Your task to perform on an android device: Search for logitech g933 on ebay.com, select the first entry, and add it to the cart. Image 0: 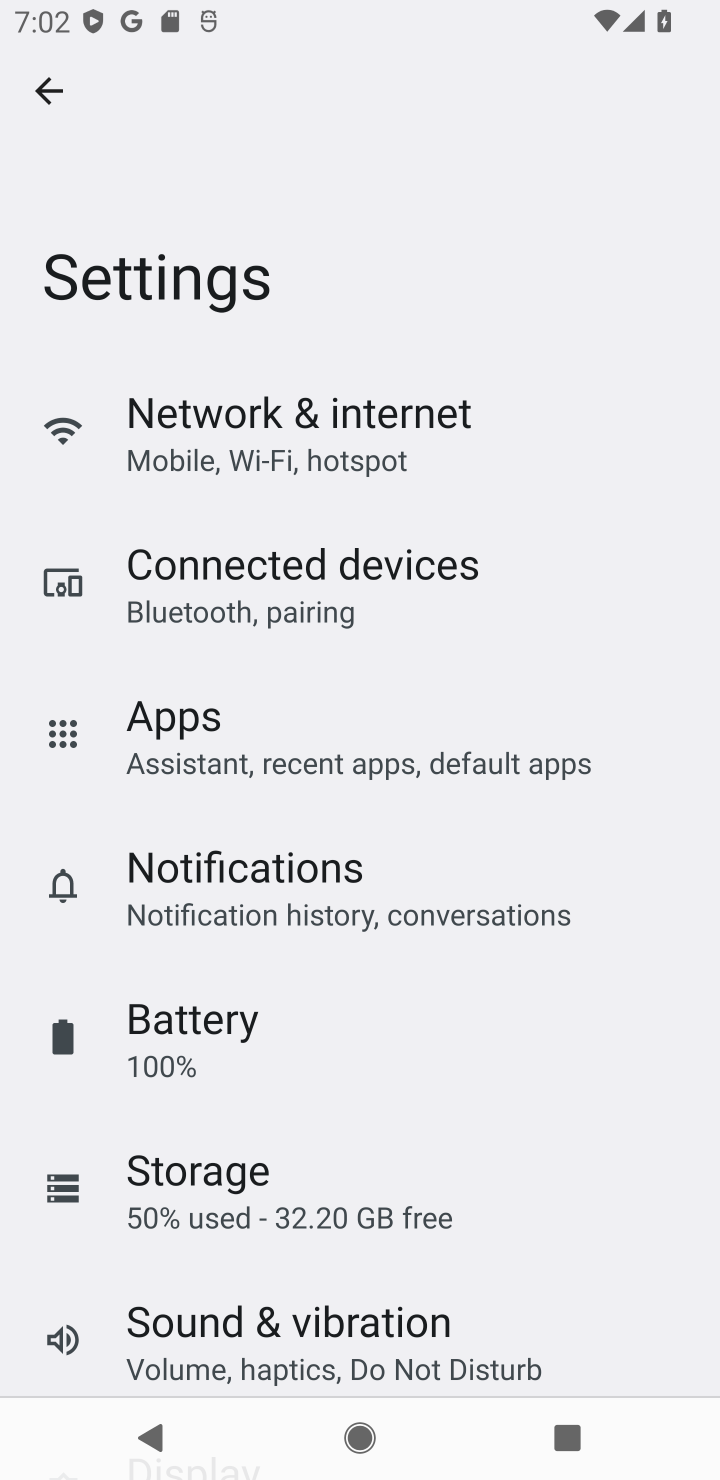
Step 0: press home button
Your task to perform on an android device: Search for logitech g933 on ebay.com, select the first entry, and add it to the cart. Image 1: 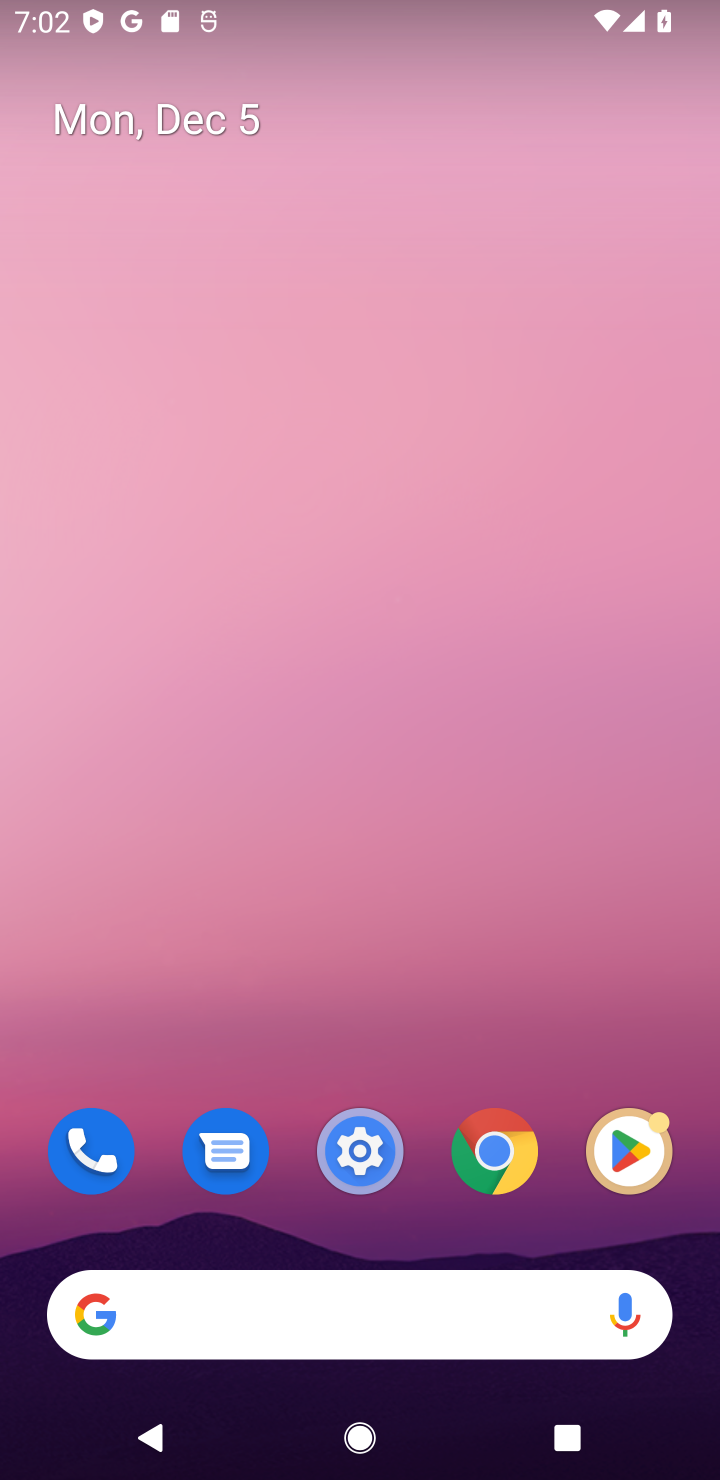
Step 1: click (331, 1364)
Your task to perform on an android device: Search for logitech g933 on ebay.com, select the first entry, and add it to the cart. Image 2: 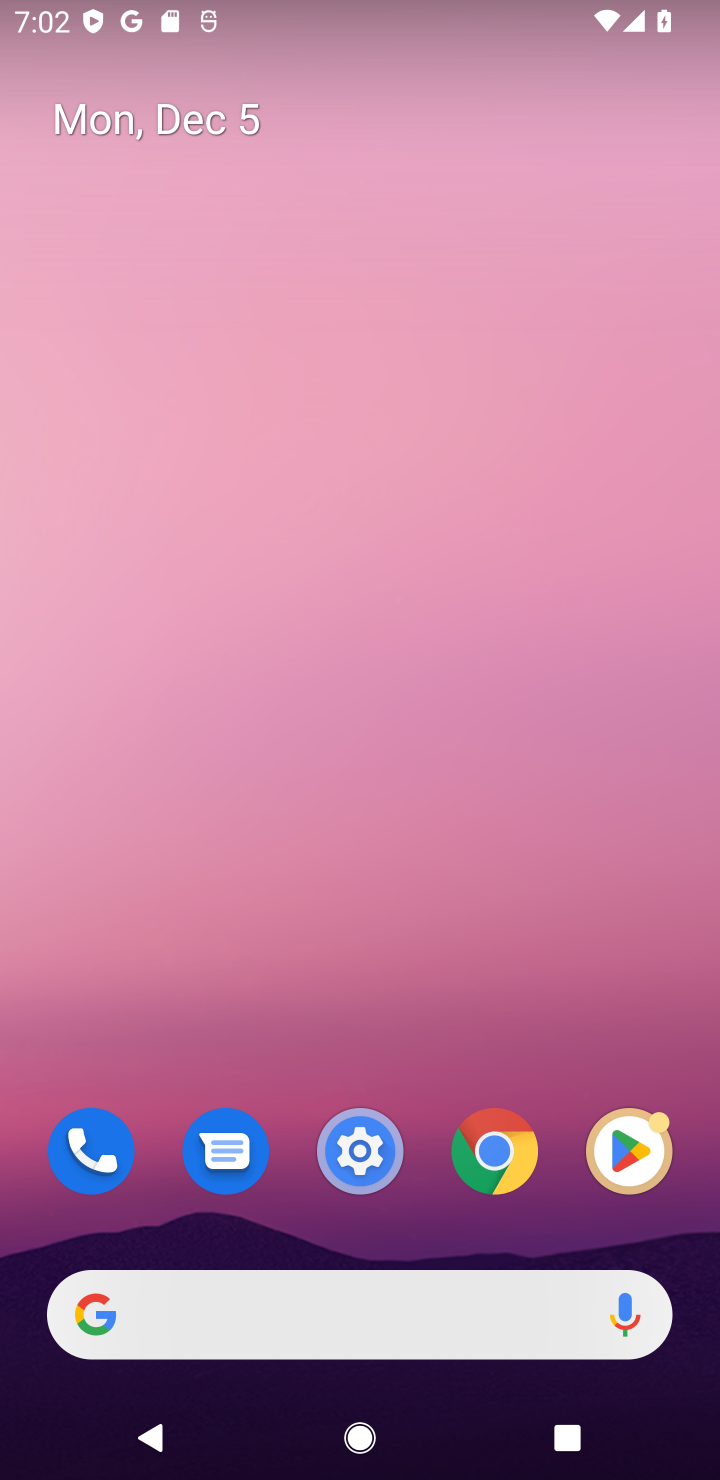
Step 2: click (306, 1335)
Your task to perform on an android device: Search for logitech g933 on ebay.com, select the first entry, and add it to the cart. Image 3: 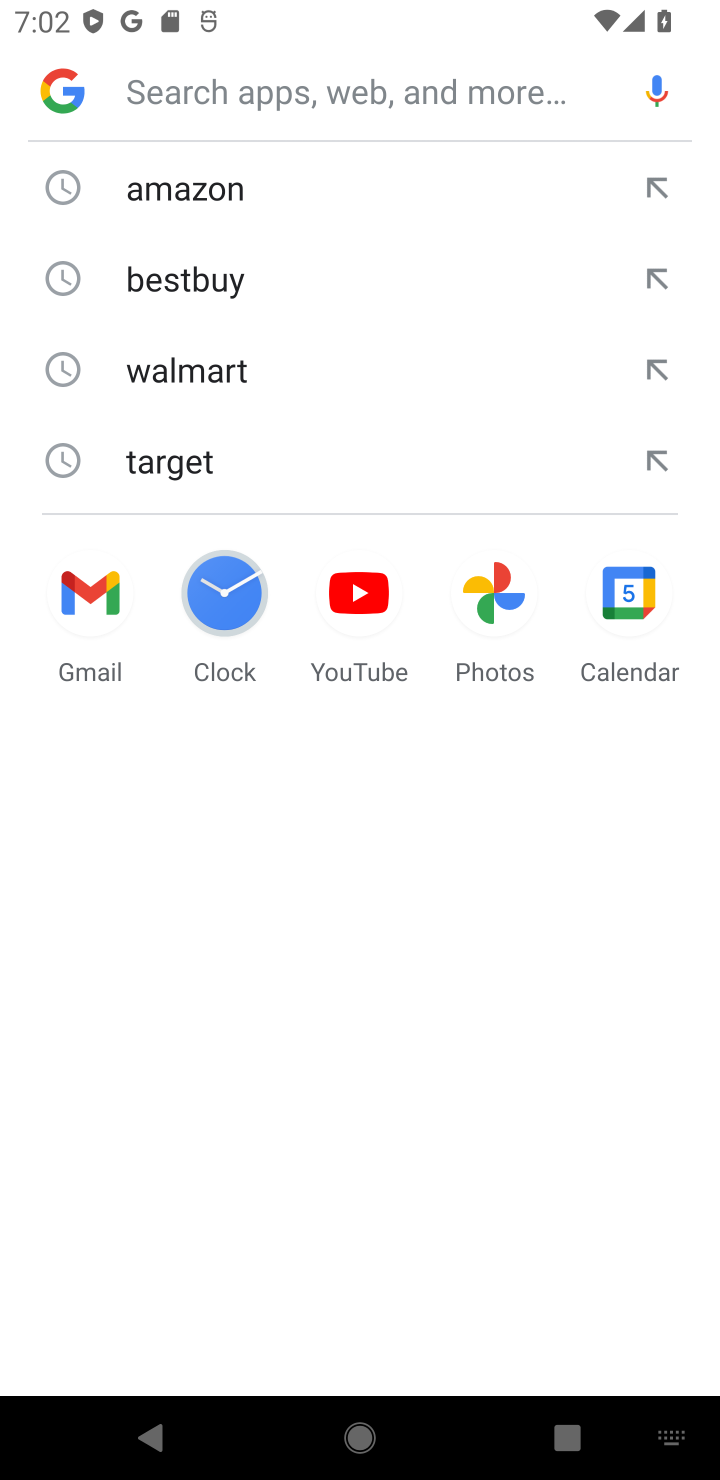
Step 3: type "ebay.com"
Your task to perform on an android device: Search for logitech g933 on ebay.com, select the first entry, and add it to the cart. Image 4: 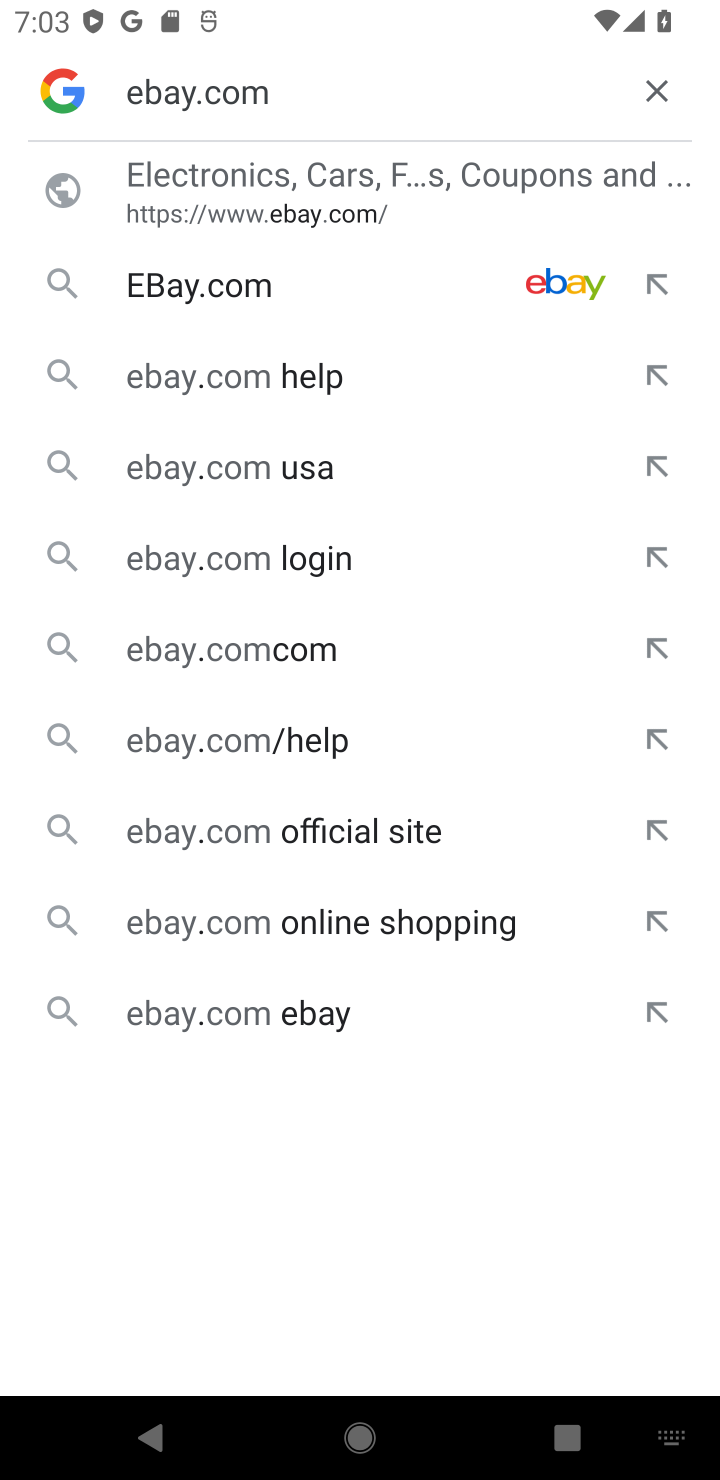
Step 4: click (327, 205)
Your task to perform on an android device: Search for logitech g933 on ebay.com, select the first entry, and add it to the cart. Image 5: 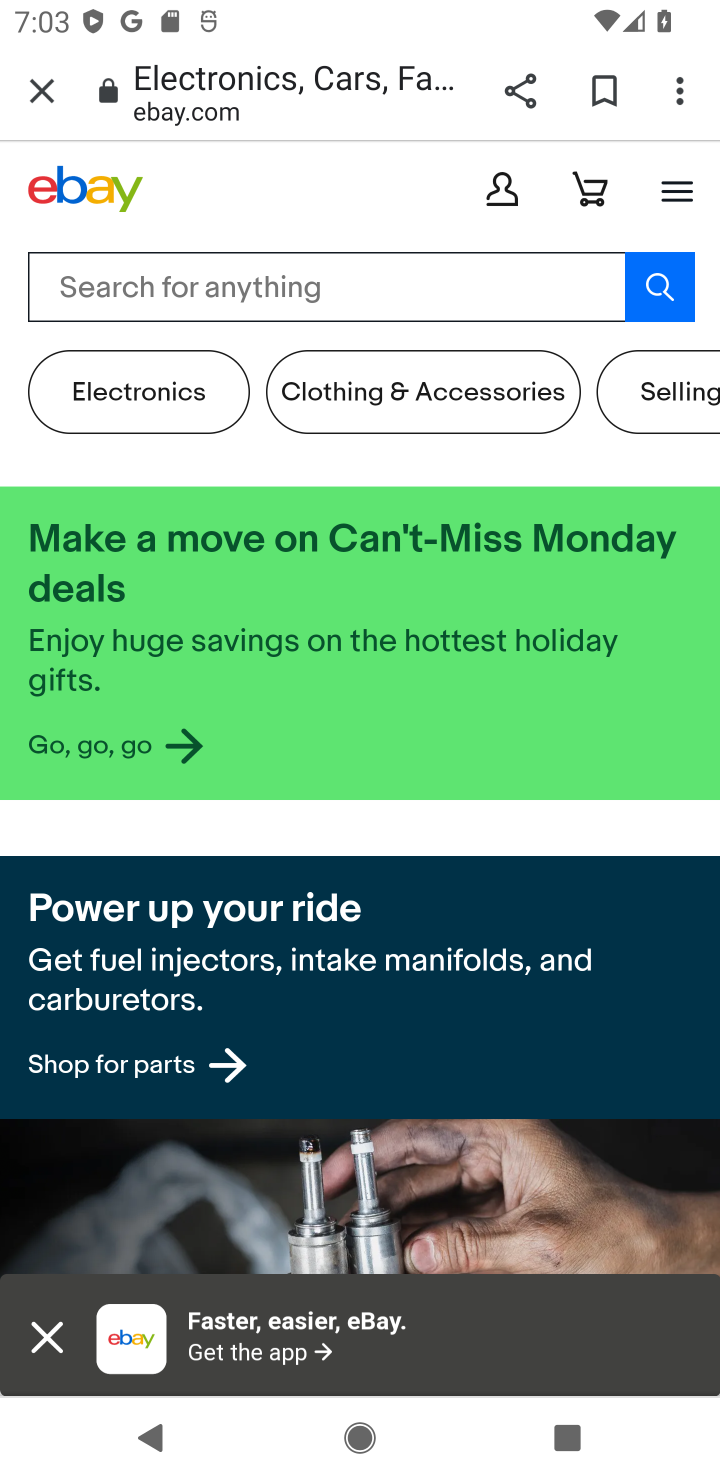
Step 5: click (118, 283)
Your task to perform on an android device: Search for logitech g933 on ebay.com, select the first entry, and add it to the cart. Image 6: 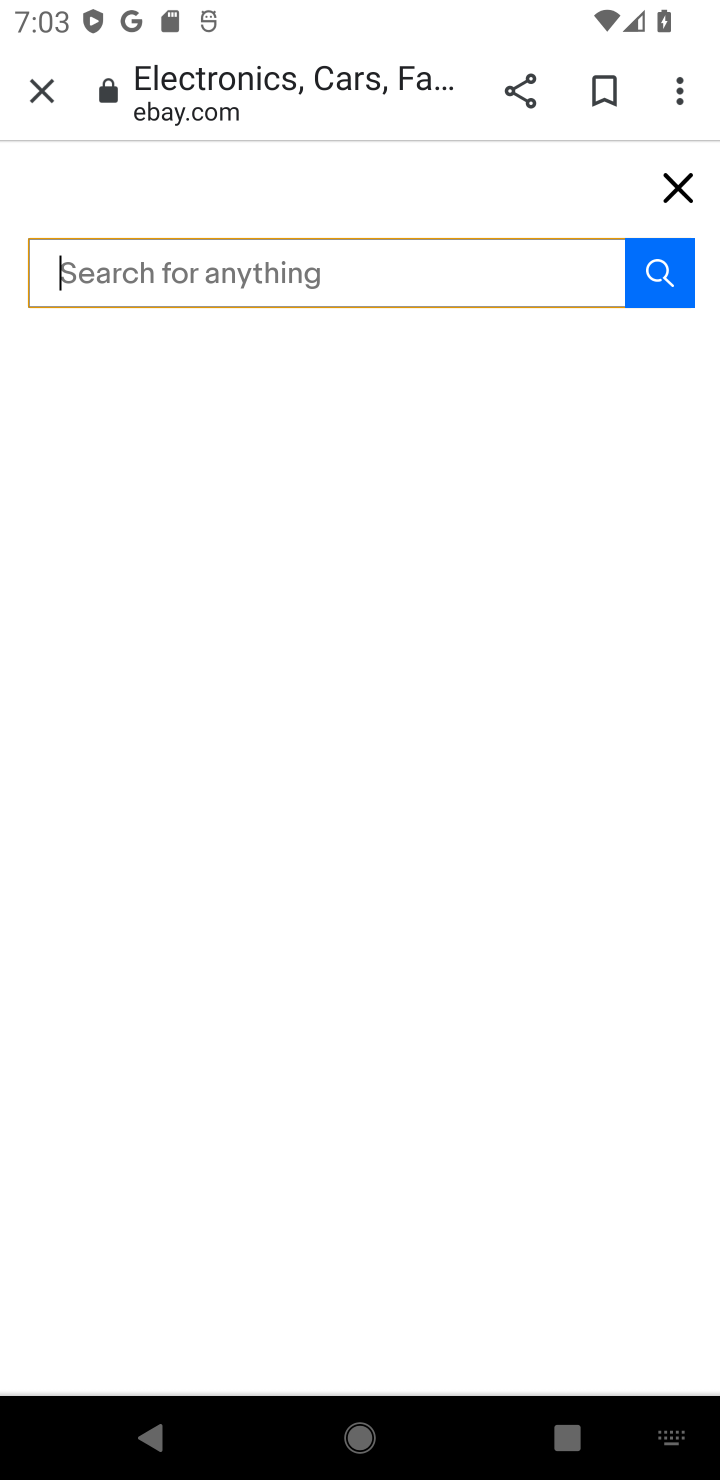
Step 6: type "logitech g933"
Your task to perform on an android device: Search for logitech g933 on ebay.com, select the first entry, and add it to the cart. Image 7: 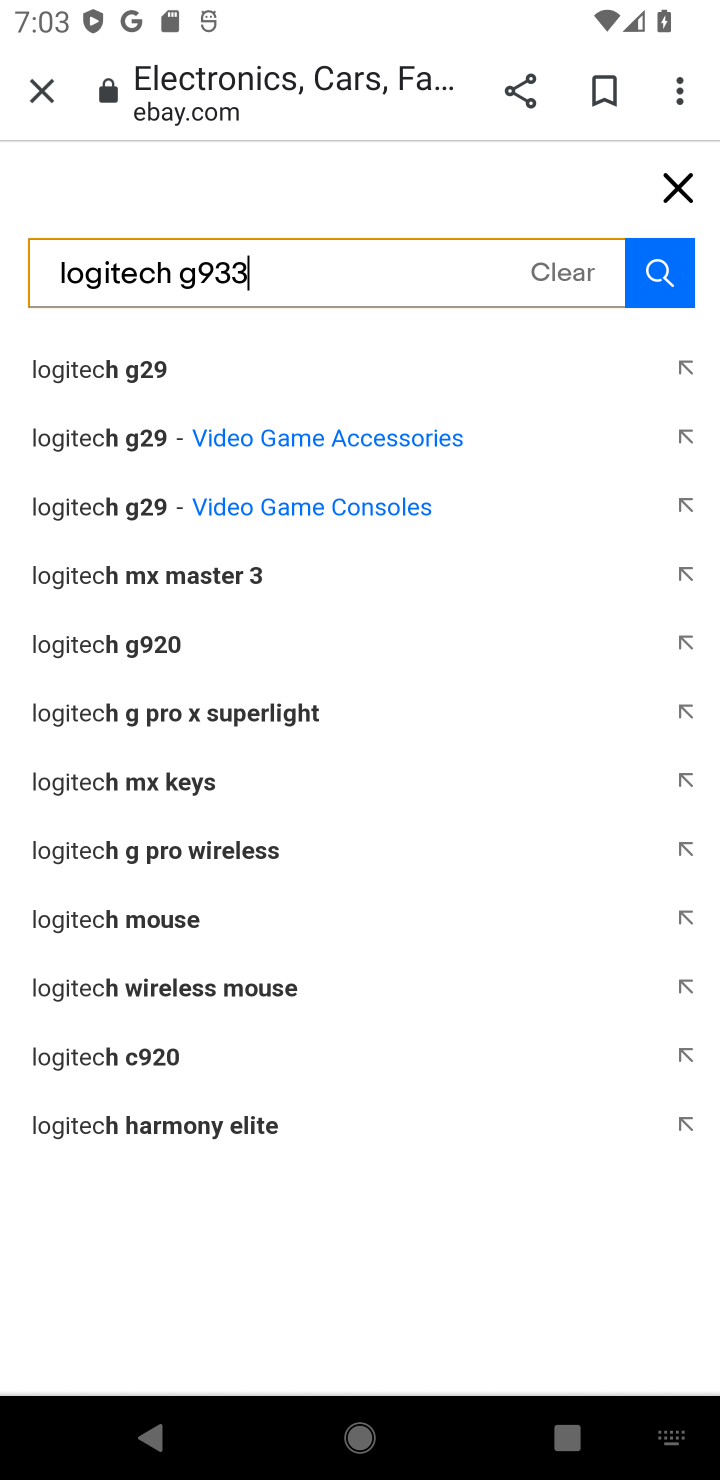
Step 7: click (663, 269)
Your task to perform on an android device: Search for logitech g933 on ebay.com, select the first entry, and add it to the cart. Image 8: 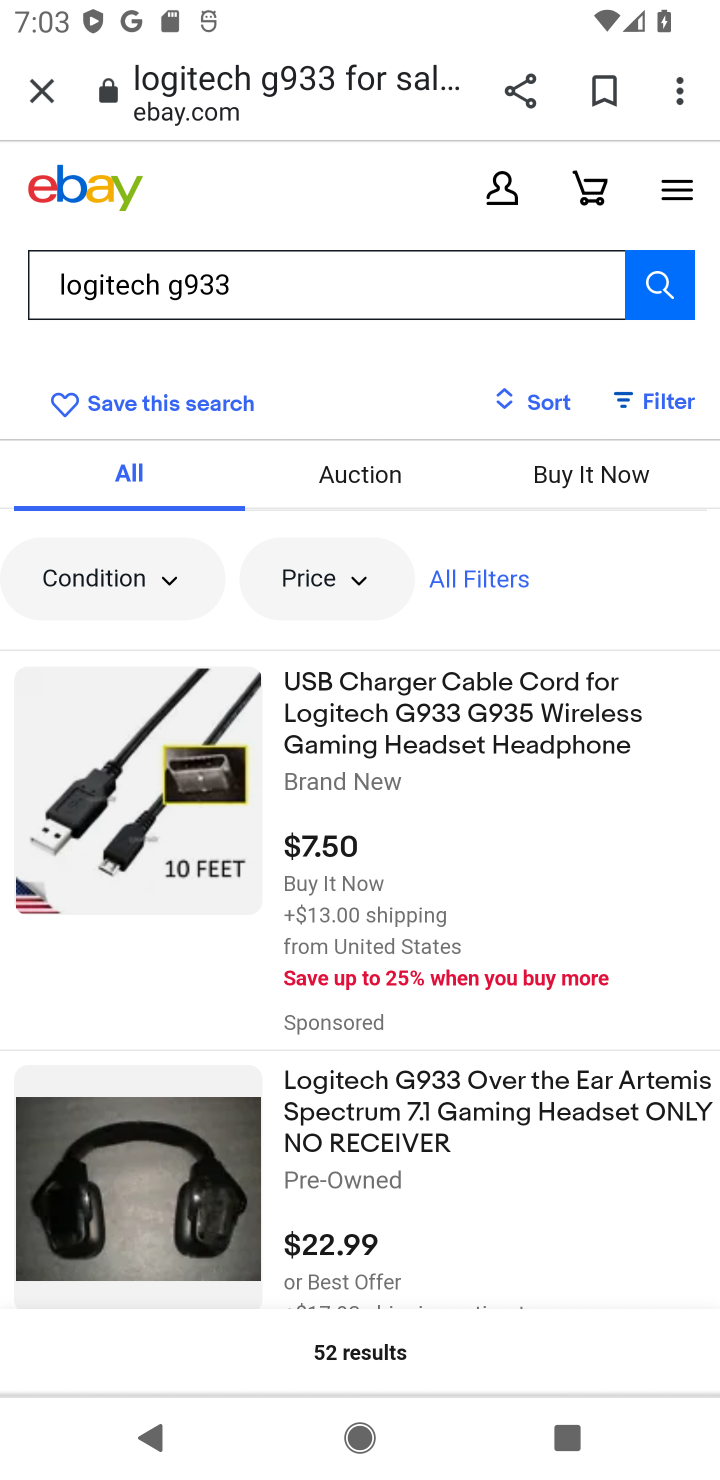
Step 8: click (317, 715)
Your task to perform on an android device: Search for logitech g933 on ebay.com, select the first entry, and add it to the cart. Image 9: 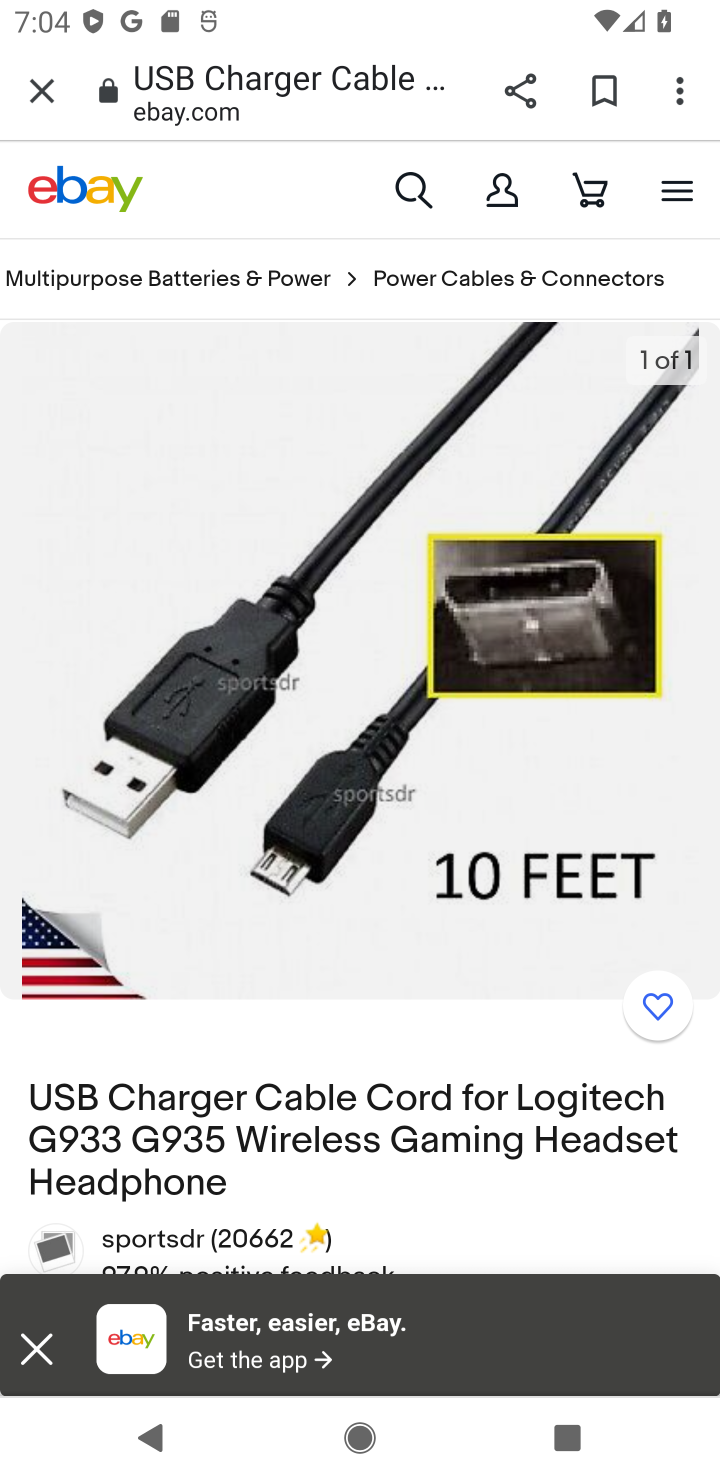
Step 9: drag from (367, 1181) to (284, 577)
Your task to perform on an android device: Search for logitech g933 on ebay.com, select the first entry, and add it to the cart. Image 10: 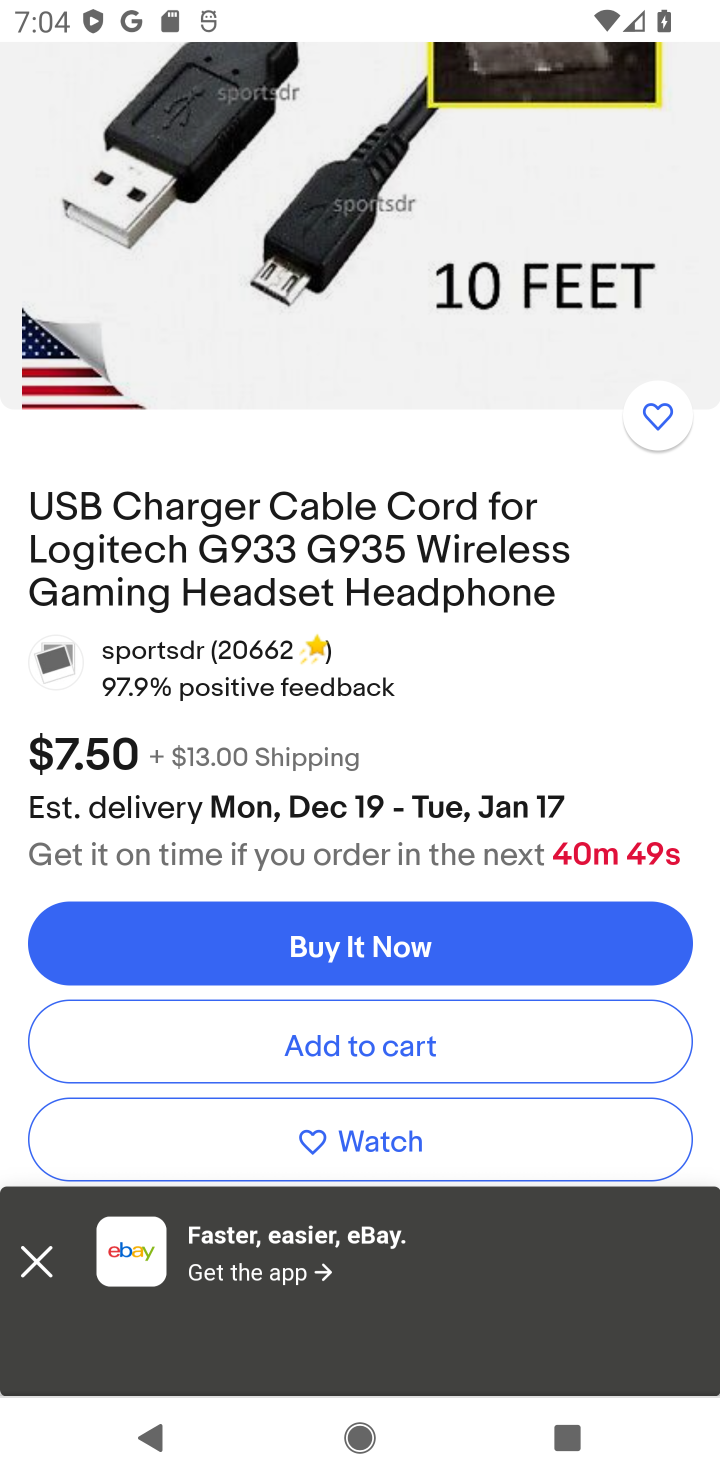
Step 10: click (367, 1029)
Your task to perform on an android device: Search for logitech g933 on ebay.com, select the first entry, and add it to the cart. Image 11: 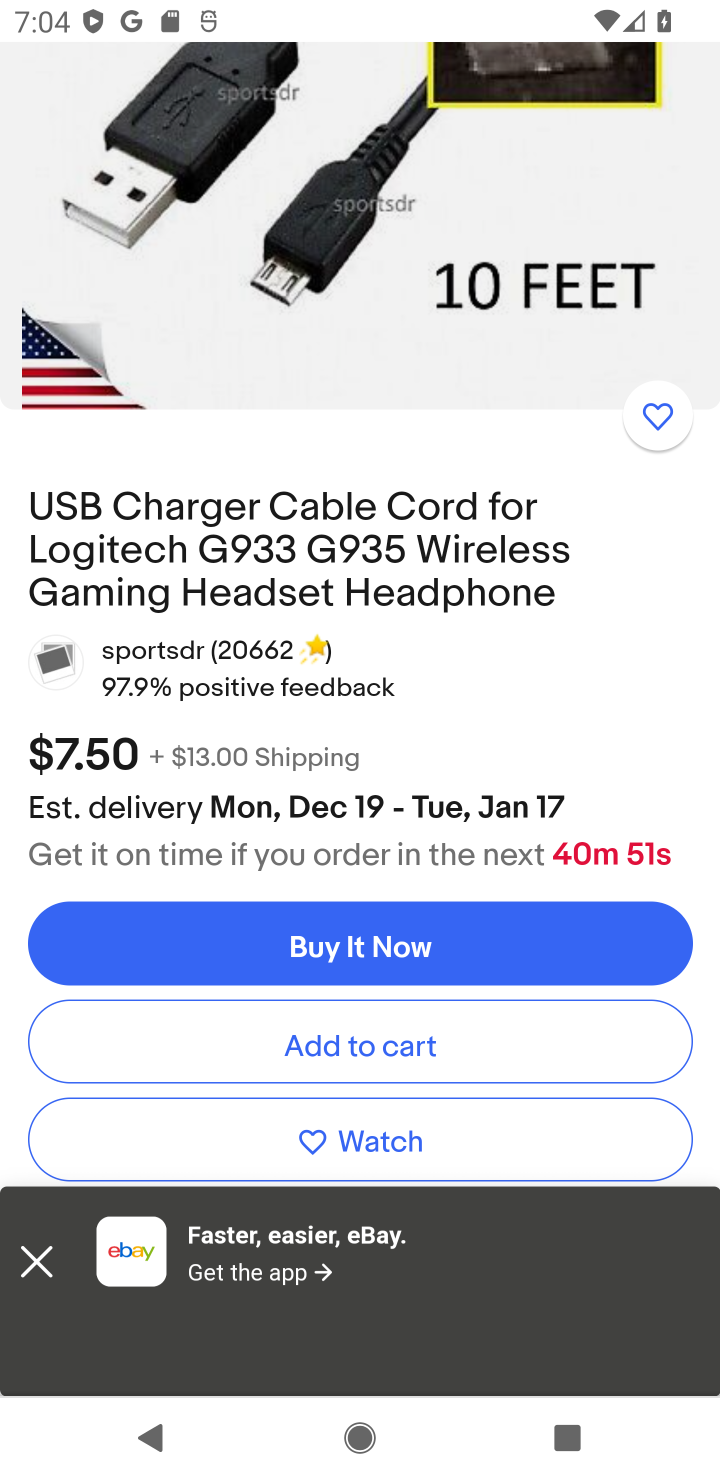
Step 11: task complete